Your task to perform on an android device: Open settings Image 0: 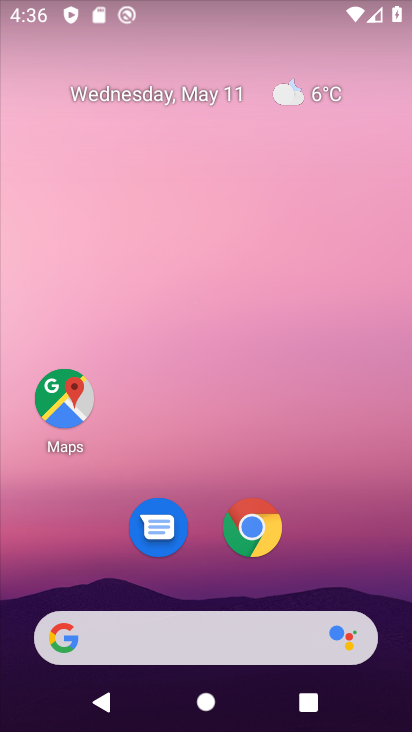
Step 0: drag from (265, 652) to (179, 74)
Your task to perform on an android device: Open settings Image 1: 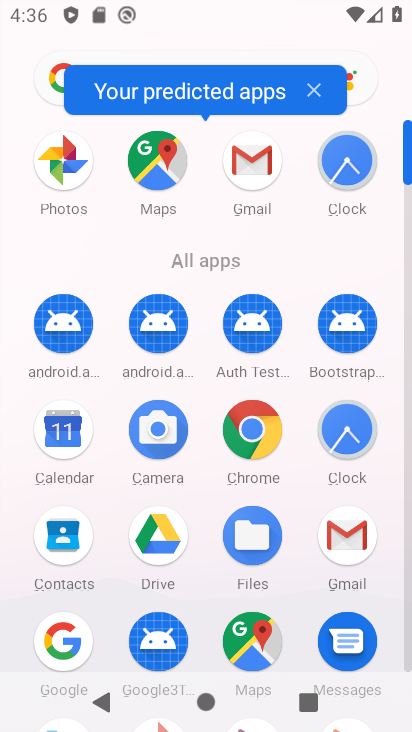
Step 1: drag from (290, 222) to (303, 583)
Your task to perform on an android device: Open settings Image 2: 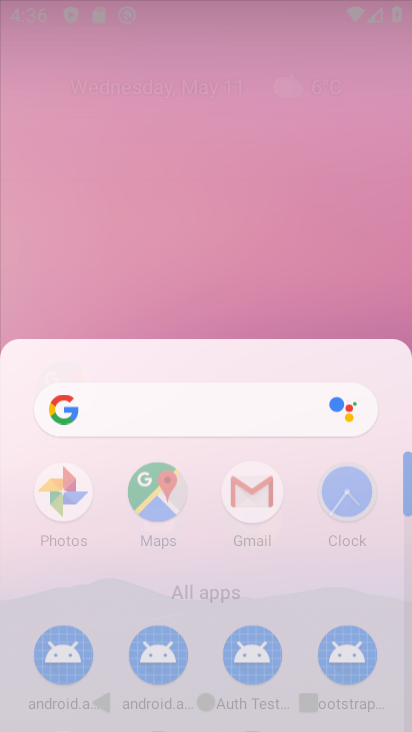
Step 2: drag from (282, 444) to (317, 539)
Your task to perform on an android device: Open settings Image 3: 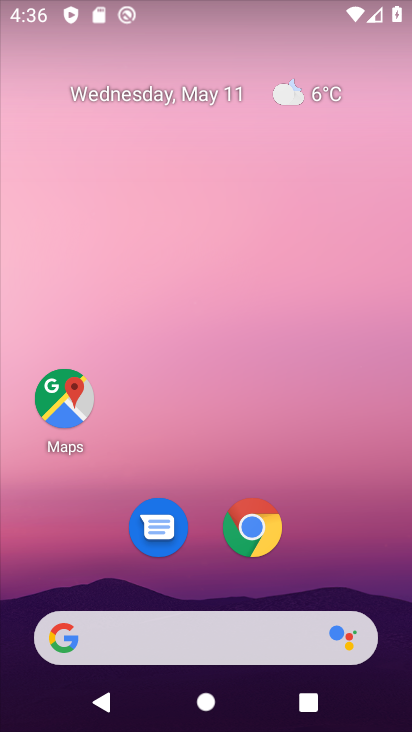
Step 3: drag from (292, 275) to (315, 584)
Your task to perform on an android device: Open settings Image 4: 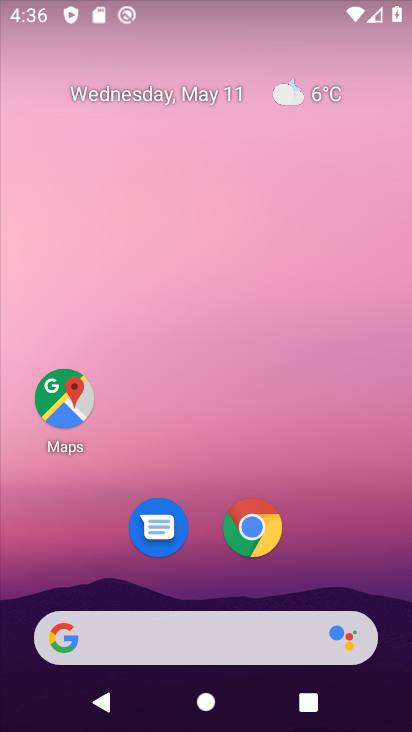
Step 4: drag from (313, 581) to (206, 127)
Your task to perform on an android device: Open settings Image 5: 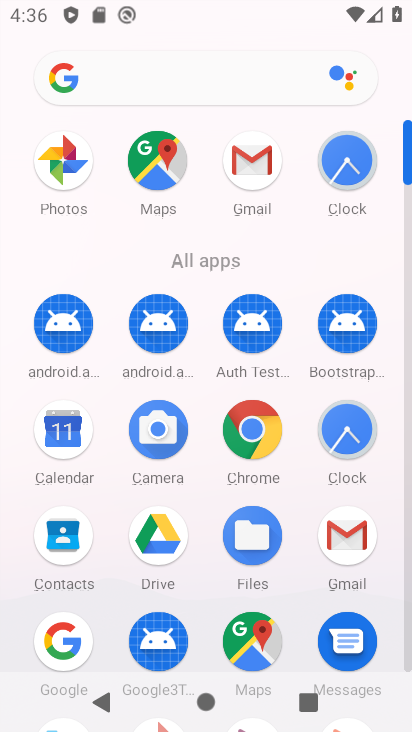
Step 5: drag from (304, 490) to (237, 163)
Your task to perform on an android device: Open settings Image 6: 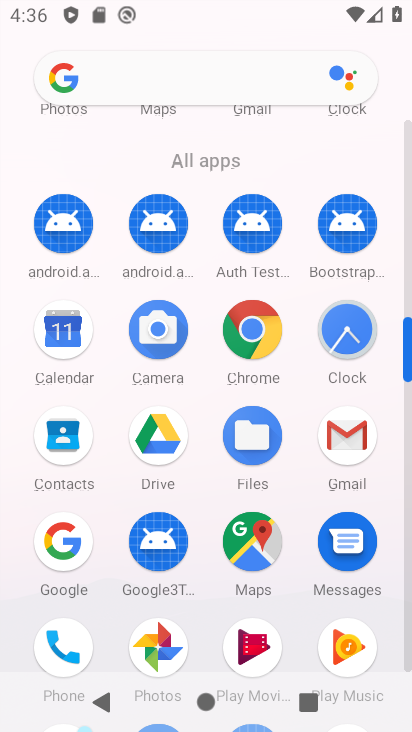
Step 6: drag from (297, 422) to (260, 96)
Your task to perform on an android device: Open settings Image 7: 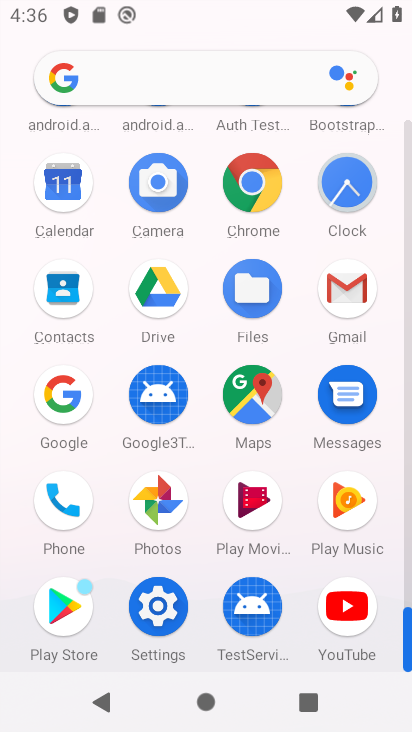
Step 7: click (151, 615)
Your task to perform on an android device: Open settings Image 8: 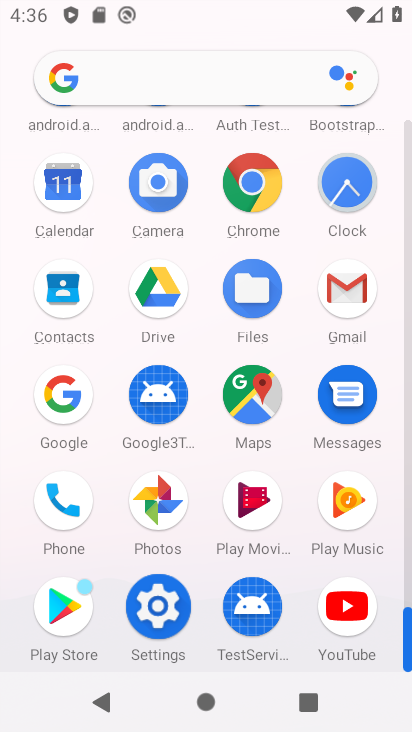
Step 8: click (148, 609)
Your task to perform on an android device: Open settings Image 9: 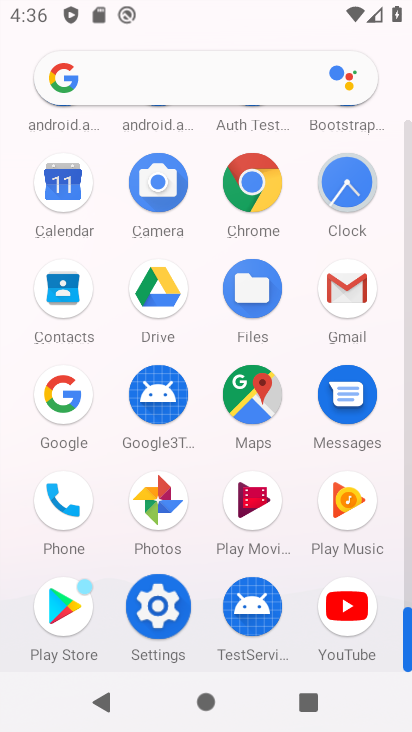
Step 9: click (147, 614)
Your task to perform on an android device: Open settings Image 10: 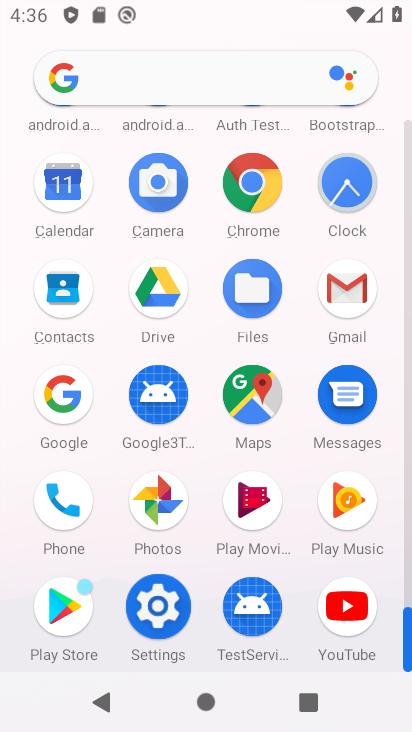
Step 10: click (141, 620)
Your task to perform on an android device: Open settings Image 11: 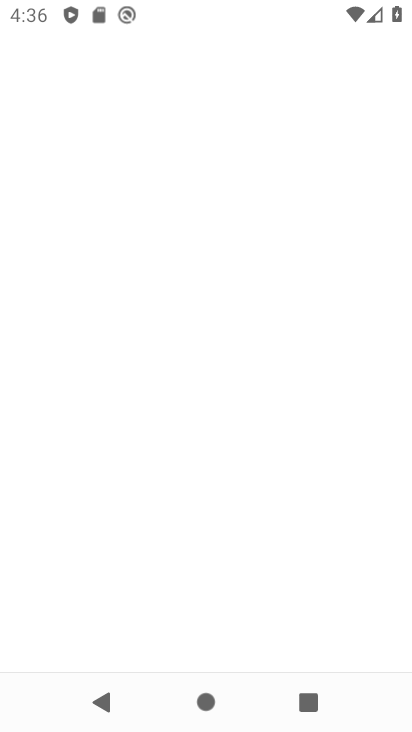
Step 11: click (148, 618)
Your task to perform on an android device: Open settings Image 12: 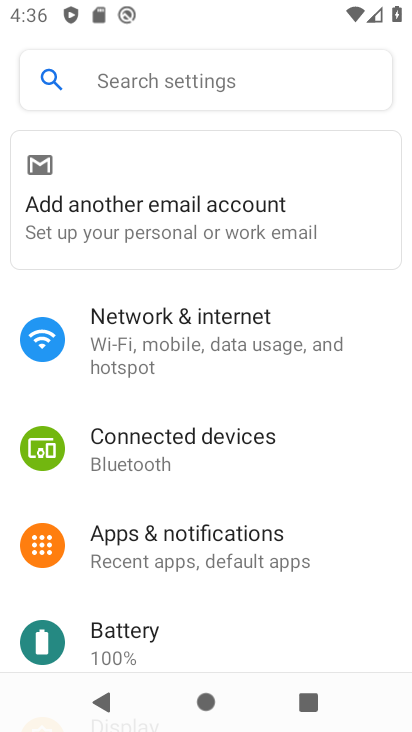
Step 12: task complete